Your task to perform on an android device: Go to Android settings Image 0: 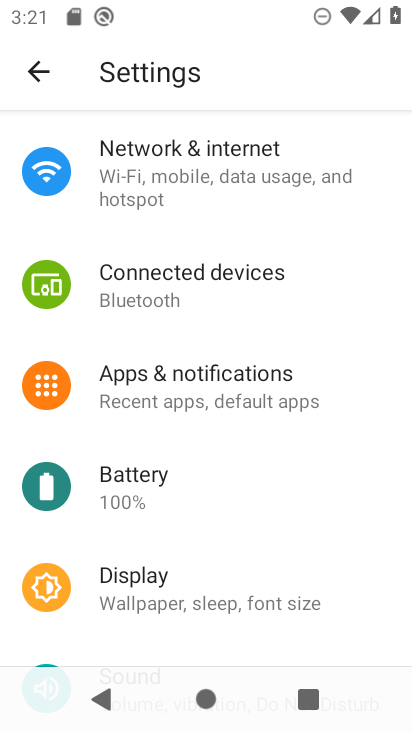
Step 0: drag from (188, 573) to (247, 103)
Your task to perform on an android device: Go to Android settings Image 1: 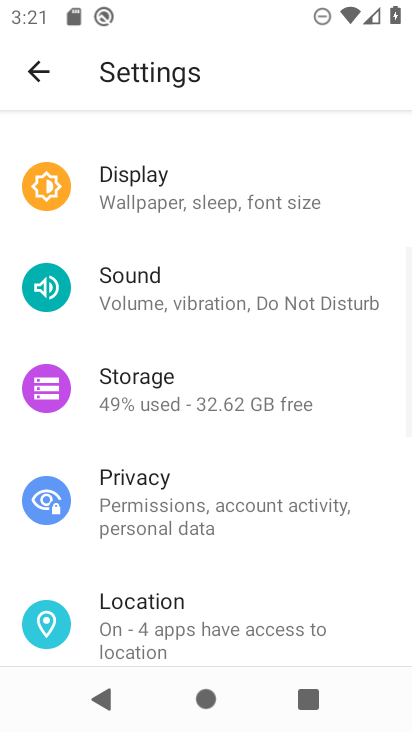
Step 1: drag from (182, 560) to (295, 30)
Your task to perform on an android device: Go to Android settings Image 2: 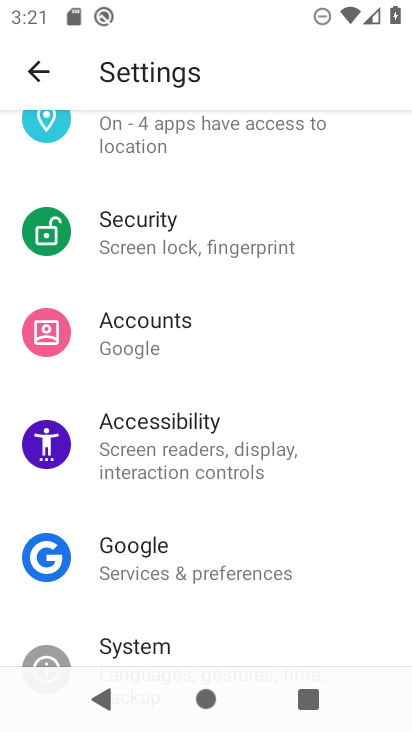
Step 2: drag from (176, 573) to (272, 49)
Your task to perform on an android device: Go to Android settings Image 3: 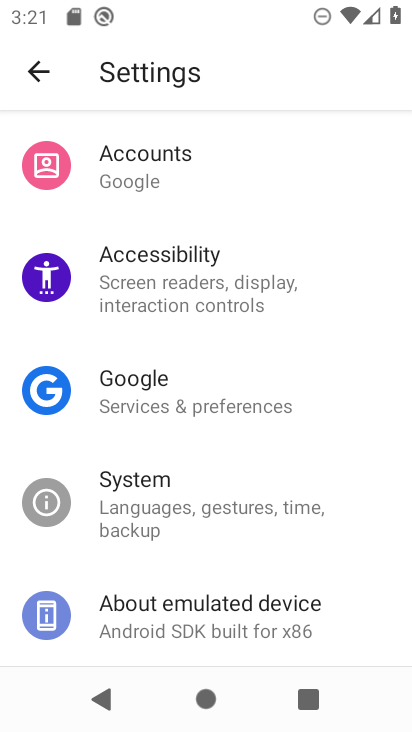
Step 3: click (228, 610)
Your task to perform on an android device: Go to Android settings Image 4: 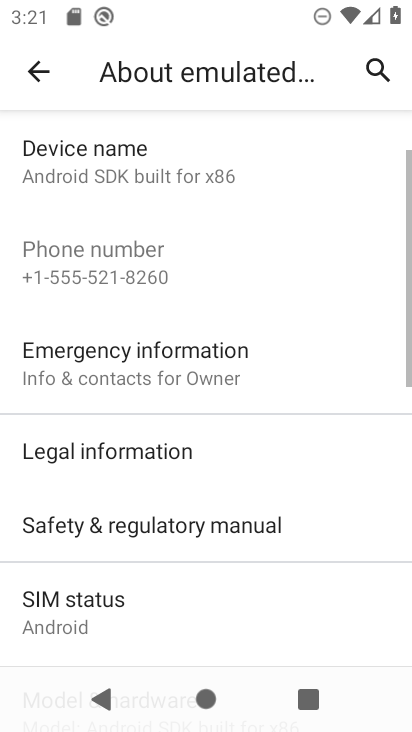
Step 4: drag from (207, 595) to (320, 70)
Your task to perform on an android device: Go to Android settings Image 5: 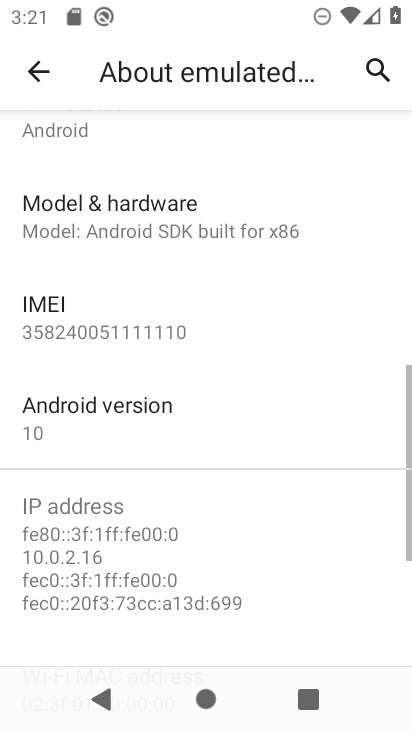
Step 5: click (89, 426)
Your task to perform on an android device: Go to Android settings Image 6: 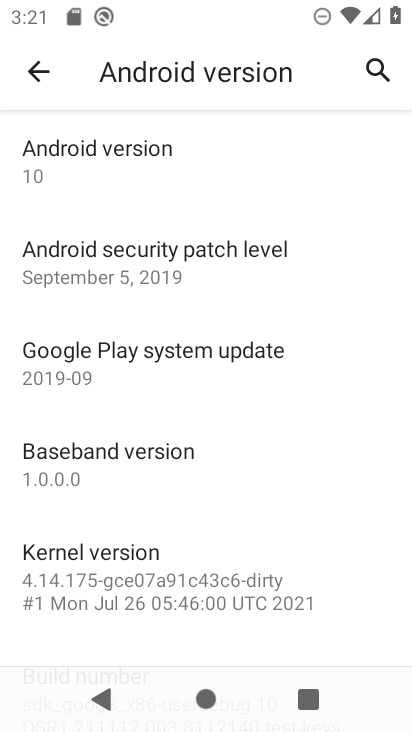
Step 6: task complete